Your task to perform on an android device: turn on the 12-hour format for clock Image 0: 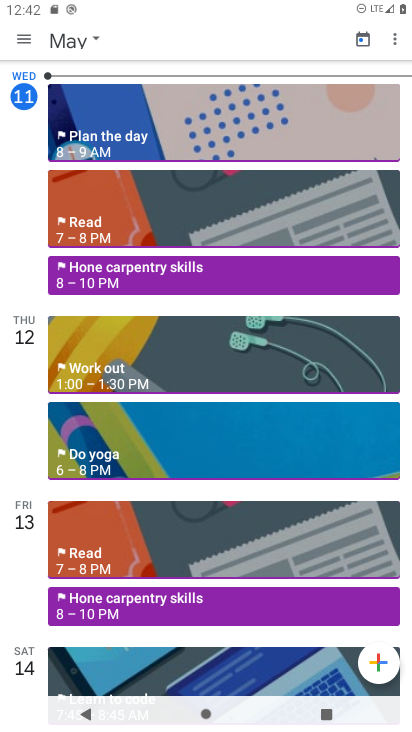
Step 0: press home button
Your task to perform on an android device: turn on the 12-hour format for clock Image 1: 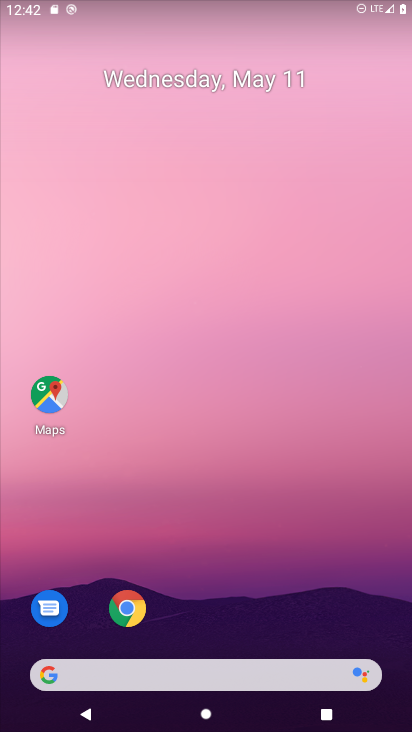
Step 1: drag from (269, 569) to (290, 65)
Your task to perform on an android device: turn on the 12-hour format for clock Image 2: 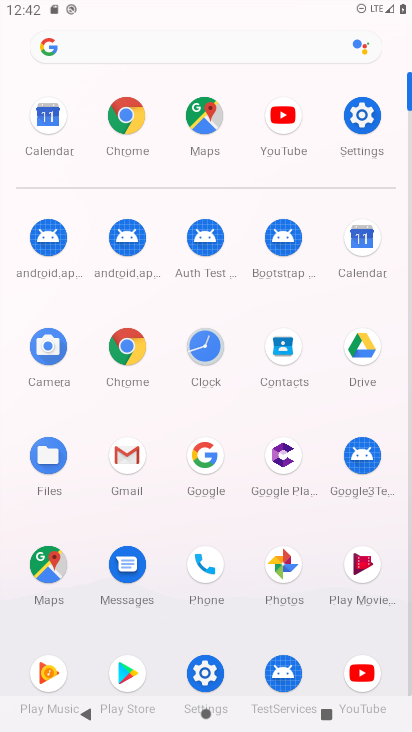
Step 2: click (209, 342)
Your task to perform on an android device: turn on the 12-hour format for clock Image 3: 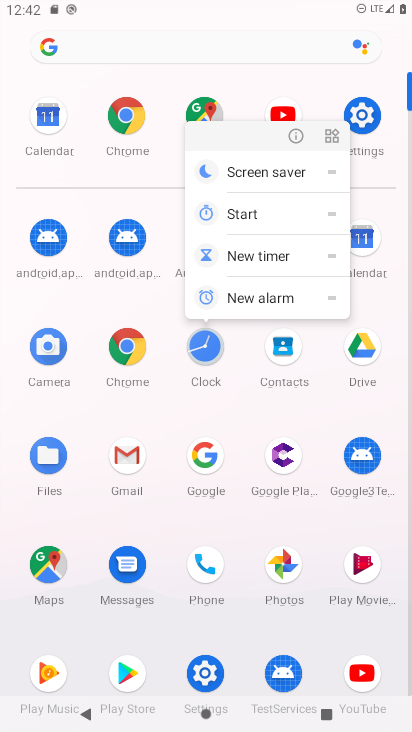
Step 3: click (211, 342)
Your task to perform on an android device: turn on the 12-hour format for clock Image 4: 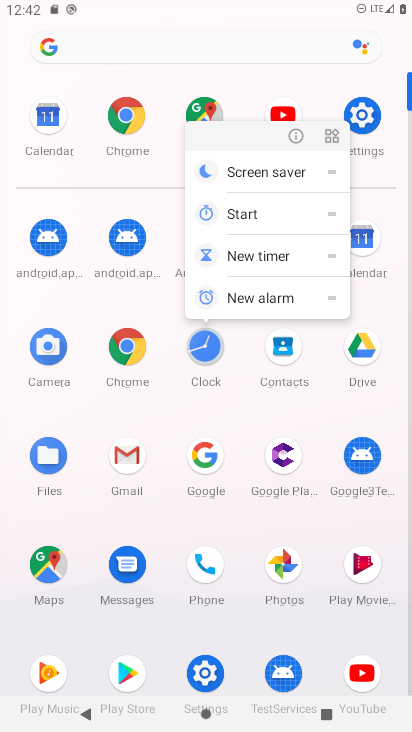
Step 4: click (205, 347)
Your task to perform on an android device: turn on the 12-hour format for clock Image 5: 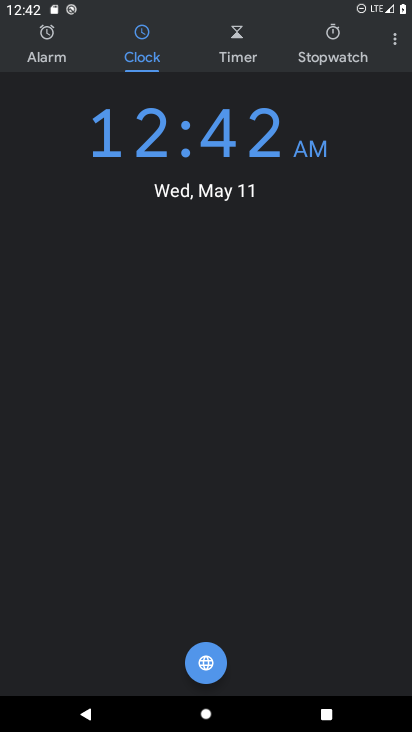
Step 5: click (395, 35)
Your task to perform on an android device: turn on the 12-hour format for clock Image 6: 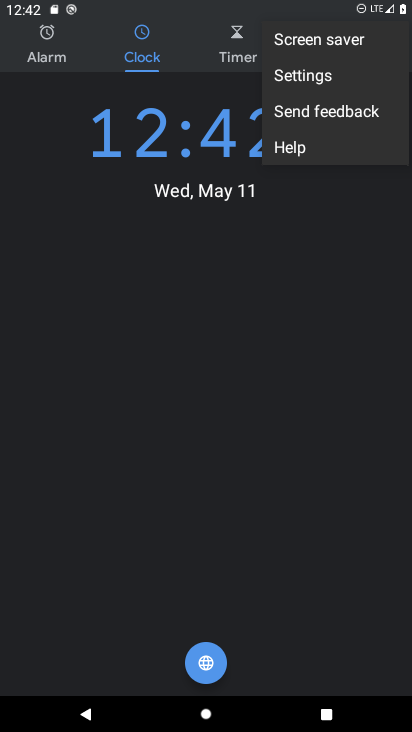
Step 6: click (350, 71)
Your task to perform on an android device: turn on the 12-hour format for clock Image 7: 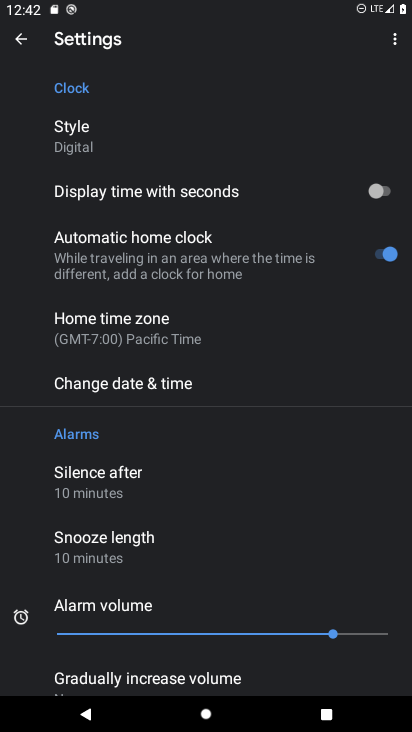
Step 7: click (216, 386)
Your task to perform on an android device: turn on the 12-hour format for clock Image 8: 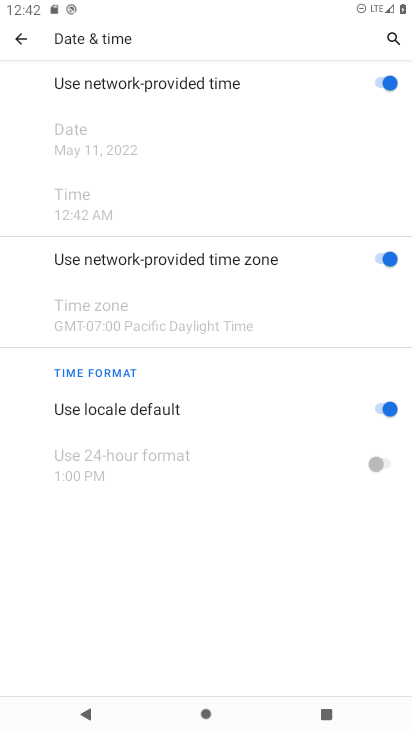
Step 8: task complete